Your task to perform on an android device: Go to Yahoo.com Image 0: 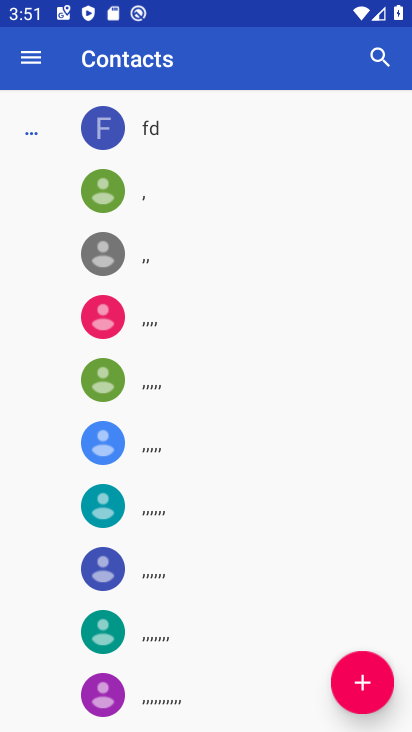
Step 0: press home button
Your task to perform on an android device: Go to Yahoo.com Image 1: 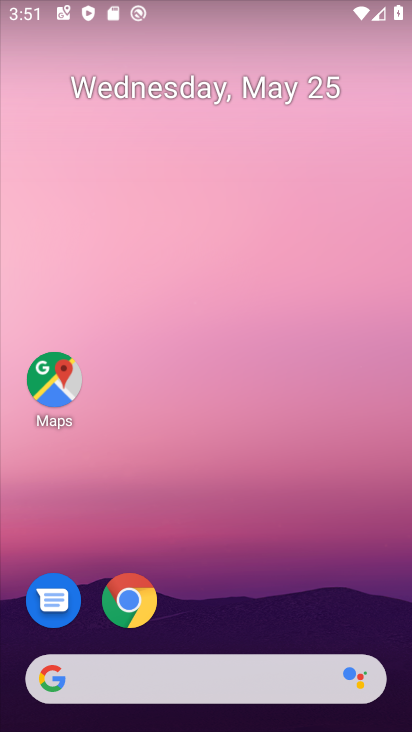
Step 1: drag from (3, 704) to (215, 170)
Your task to perform on an android device: Go to Yahoo.com Image 2: 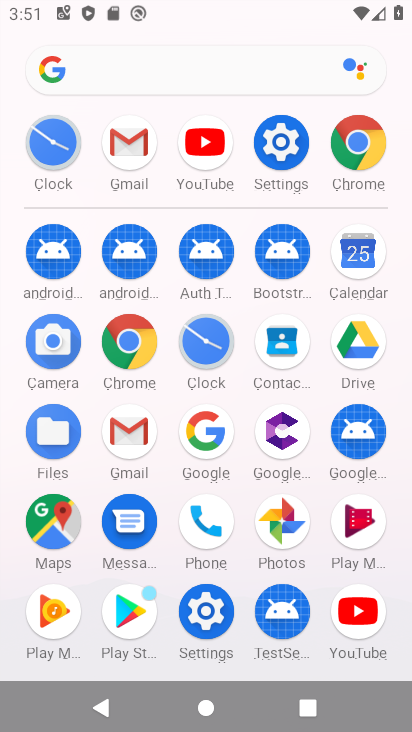
Step 2: drag from (28, 615) to (242, 126)
Your task to perform on an android device: Go to Yahoo.com Image 3: 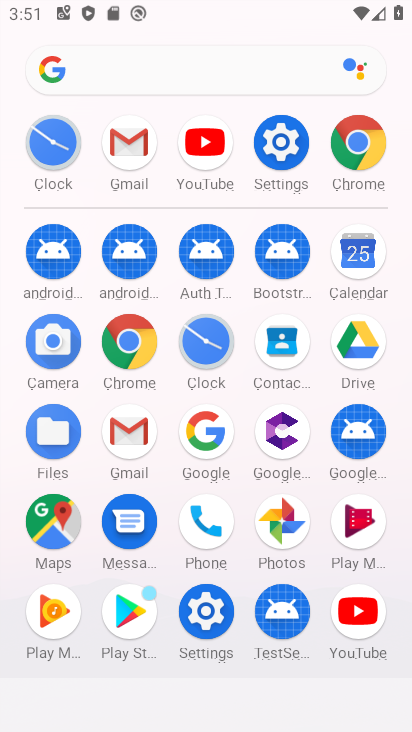
Step 3: drag from (11, 601) to (248, 164)
Your task to perform on an android device: Go to Yahoo.com Image 4: 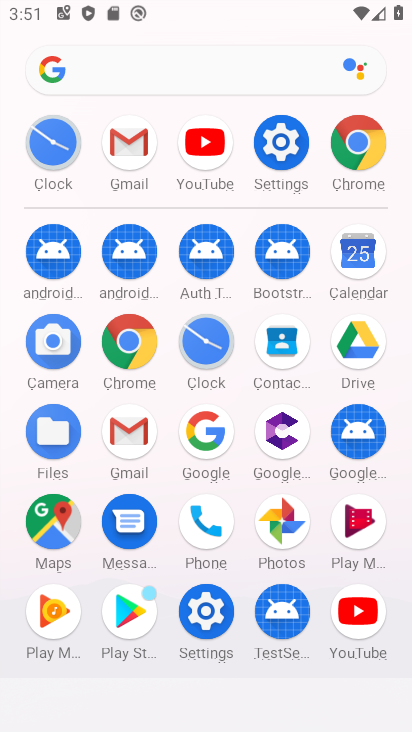
Step 4: click (149, 350)
Your task to perform on an android device: Go to Yahoo.com Image 5: 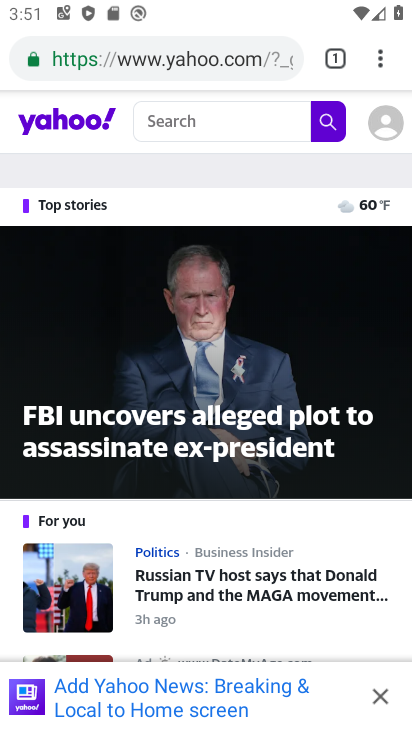
Step 5: task complete